Your task to perform on an android device: change your default location settings in chrome Image 0: 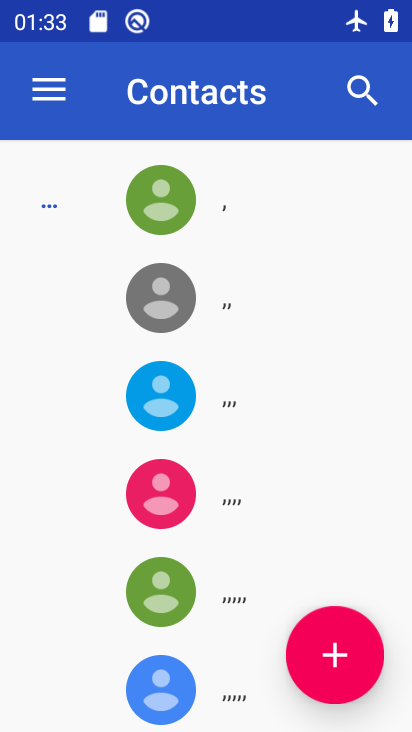
Step 0: press home button
Your task to perform on an android device: change your default location settings in chrome Image 1: 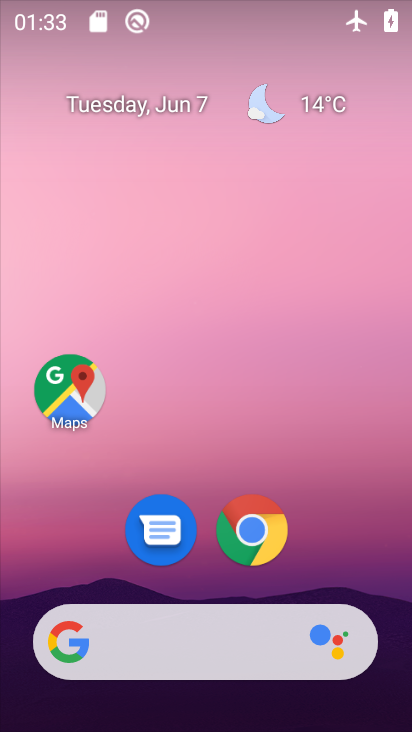
Step 1: click (265, 521)
Your task to perform on an android device: change your default location settings in chrome Image 2: 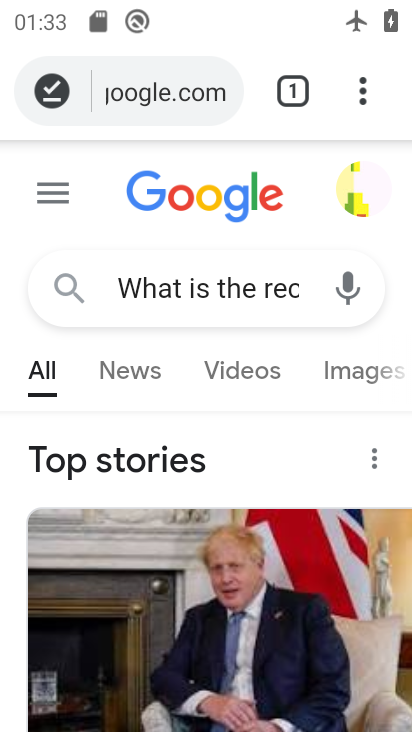
Step 2: click (370, 81)
Your task to perform on an android device: change your default location settings in chrome Image 3: 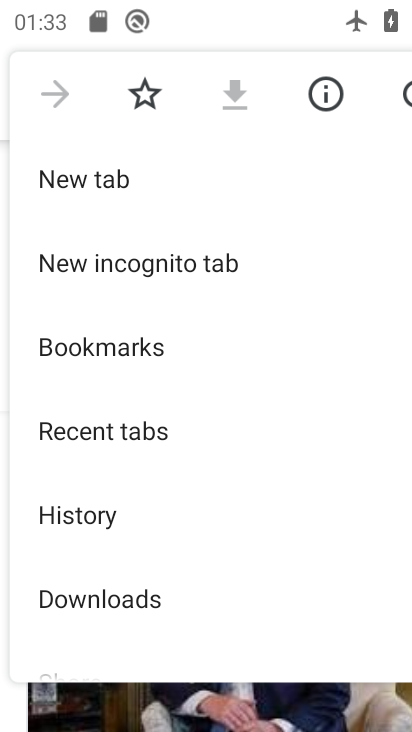
Step 3: drag from (130, 586) to (130, 308)
Your task to perform on an android device: change your default location settings in chrome Image 4: 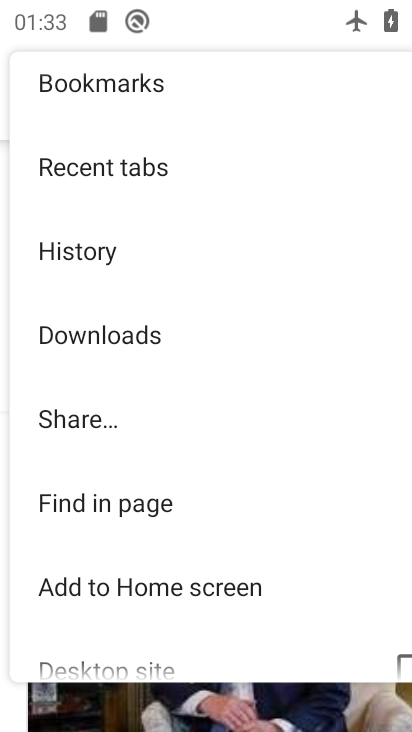
Step 4: drag from (113, 549) to (139, 263)
Your task to perform on an android device: change your default location settings in chrome Image 5: 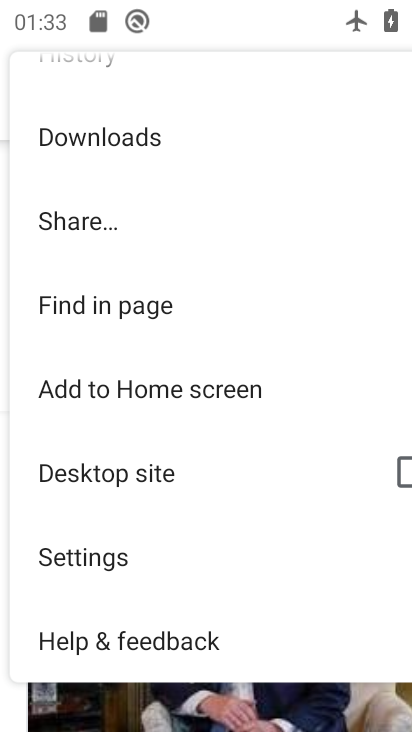
Step 5: click (95, 557)
Your task to perform on an android device: change your default location settings in chrome Image 6: 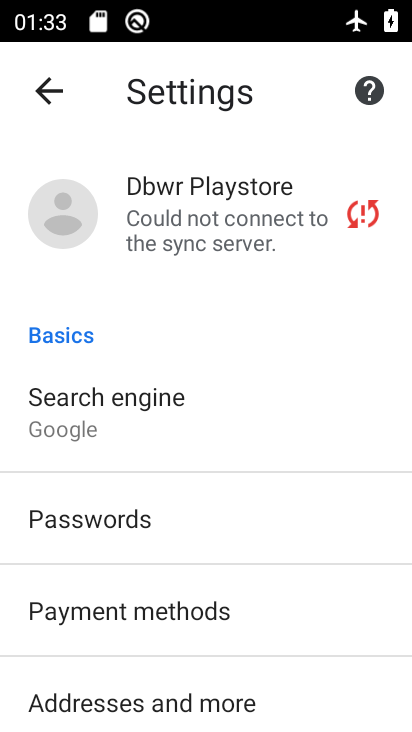
Step 6: click (144, 418)
Your task to perform on an android device: change your default location settings in chrome Image 7: 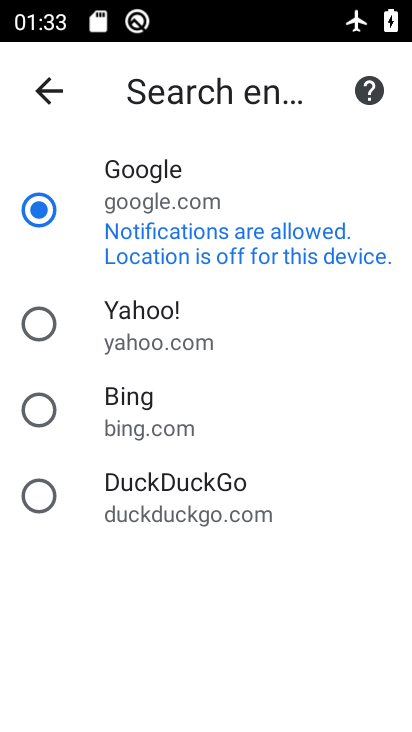
Step 7: click (52, 97)
Your task to perform on an android device: change your default location settings in chrome Image 8: 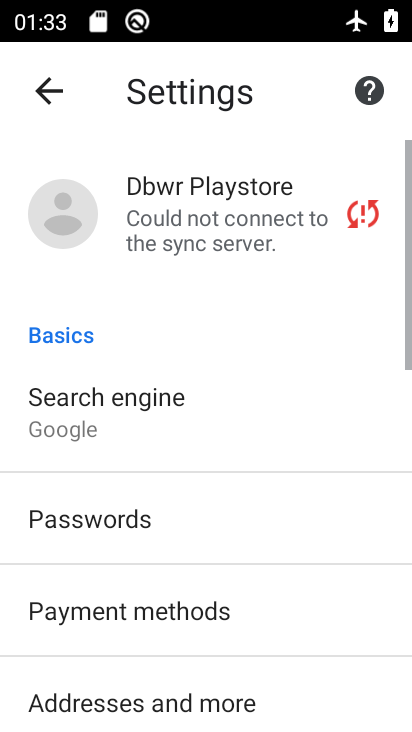
Step 8: drag from (143, 644) to (179, 282)
Your task to perform on an android device: change your default location settings in chrome Image 9: 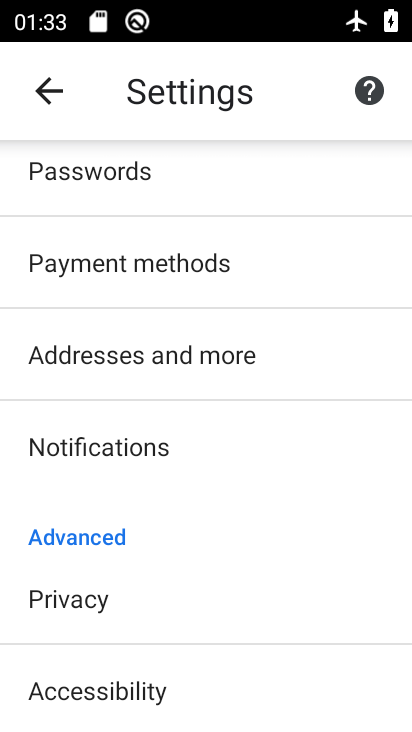
Step 9: drag from (111, 647) to (179, 242)
Your task to perform on an android device: change your default location settings in chrome Image 10: 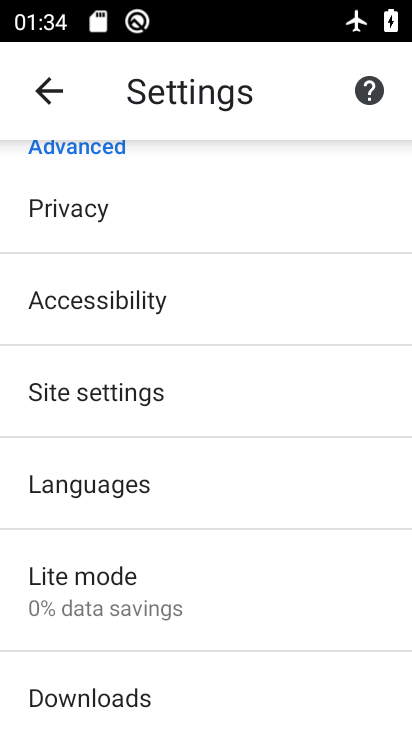
Step 10: click (155, 398)
Your task to perform on an android device: change your default location settings in chrome Image 11: 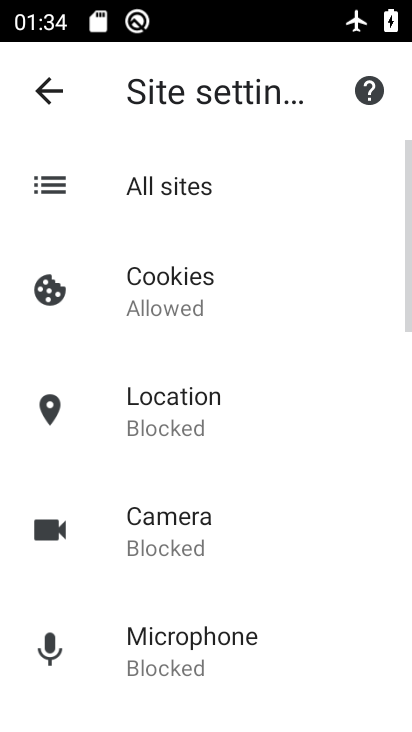
Step 11: click (164, 404)
Your task to perform on an android device: change your default location settings in chrome Image 12: 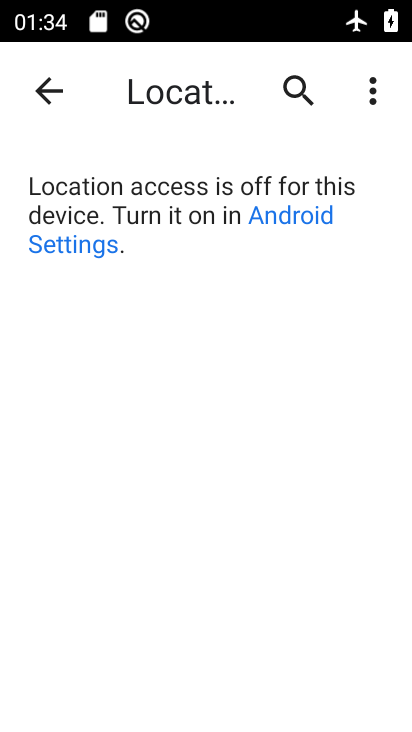
Step 12: task complete